Your task to perform on an android device: What's on my calendar tomorrow? Image 0: 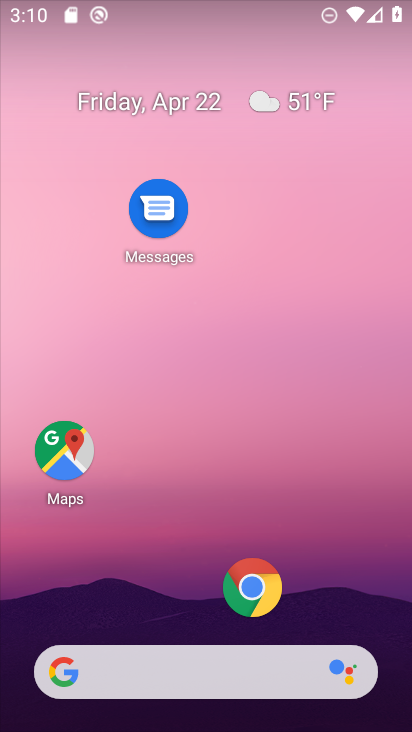
Step 0: drag from (215, 520) to (237, 168)
Your task to perform on an android device: What's on my calendar tomorrow? Image 1: 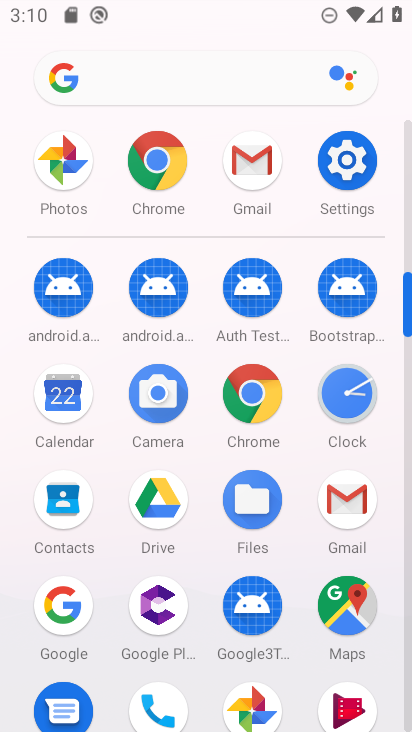
Step 1: click (41, 401)
Your task to perform on an android device: What's on my calendar tomorrow? Image 2: 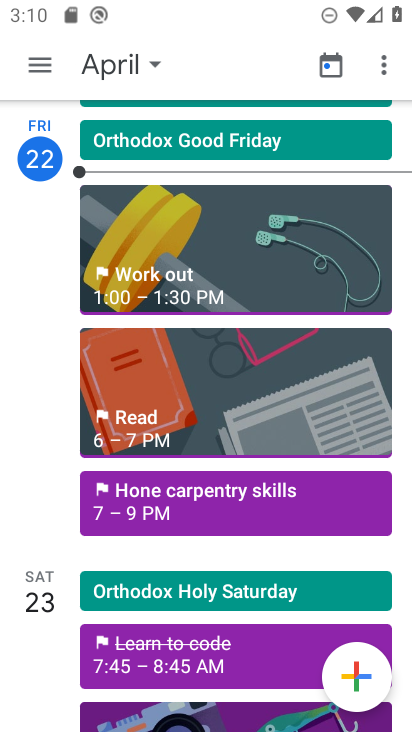
Step 2: click (110, 62)
Your task to perform on an android device: What's on my calendar tomorrow? Image 3: 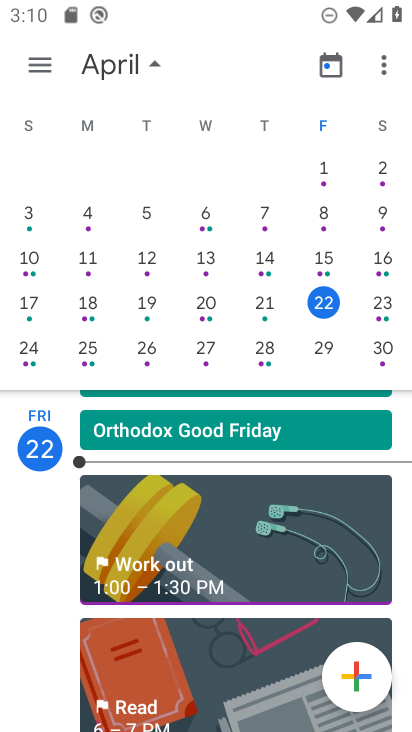
Step 3: click (383, 304)
Your task to perform on an android device: What's on my calendar tomorrow? Image 4: 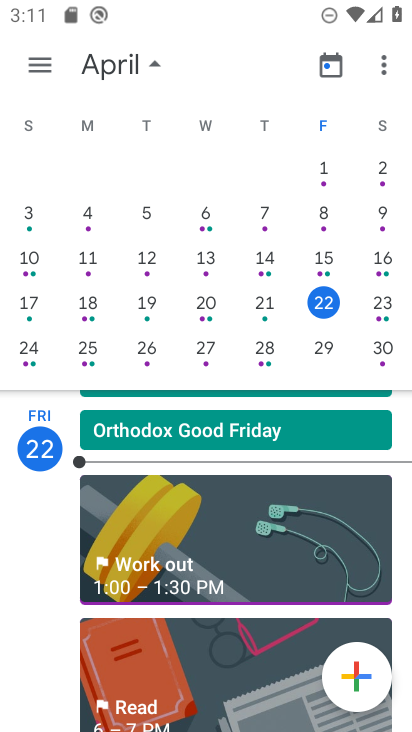
Step 4: task complete